Your task to perform on an android device: toggle data saver in the chrome app Image 0: 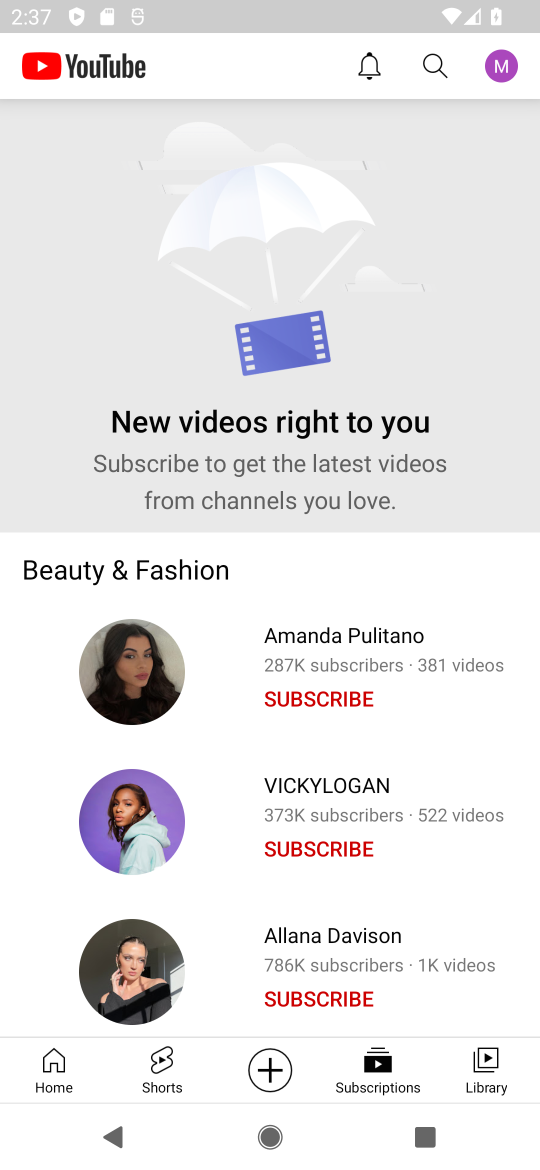
Step 0: press home button
Your task to perform on an android device: toggle data saver in the chrome app Image 1: 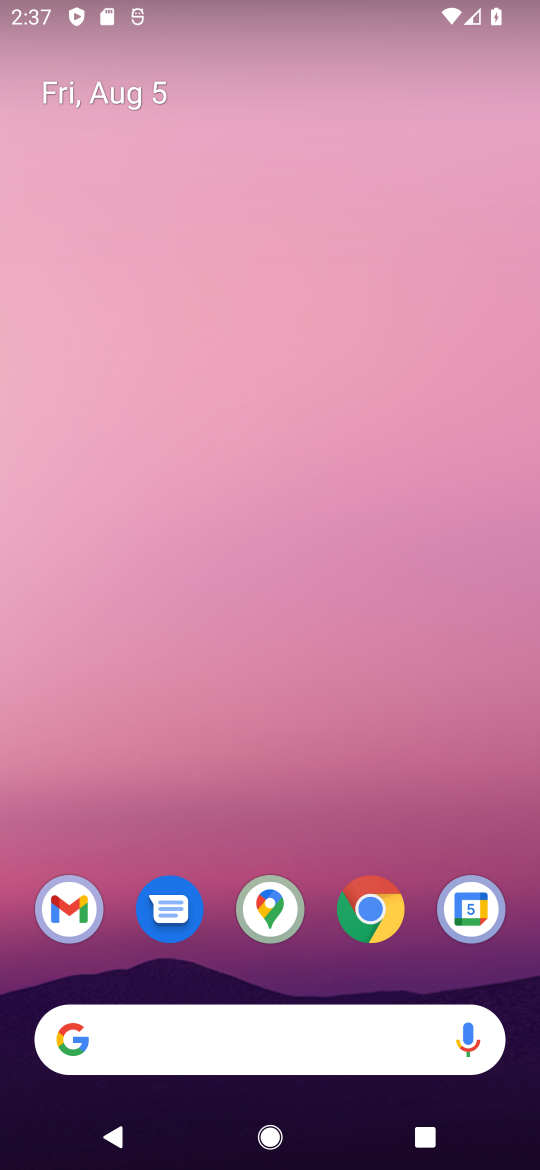
Step 1: click (363, 899)
Your task to perform on an android device: toggle data saver in the chrome app Image 2: 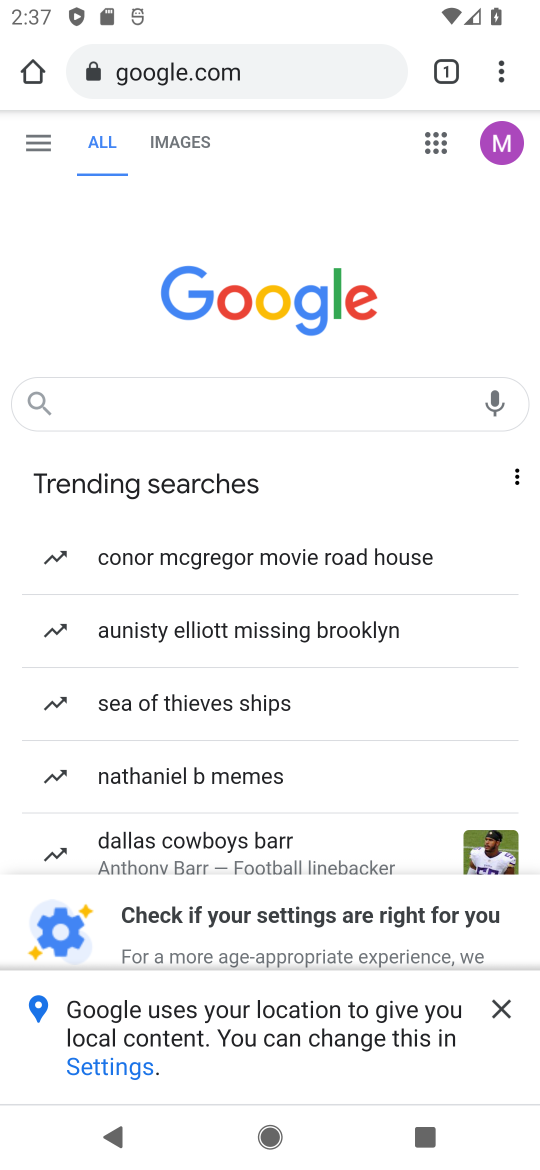
Step 2: click (502, 69)
Your task to perform on an android device: toggle data saver in the chrome app Image 3: 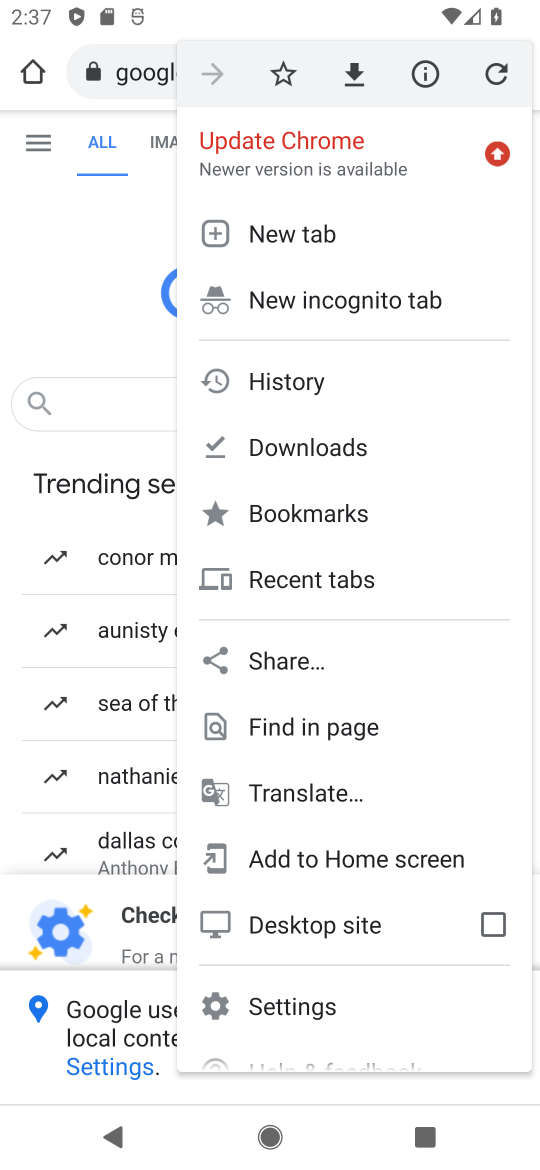
Step 3: click (316, 1009)
Your task to perform on an android device: toggle data saver in the chrome app Image 4: 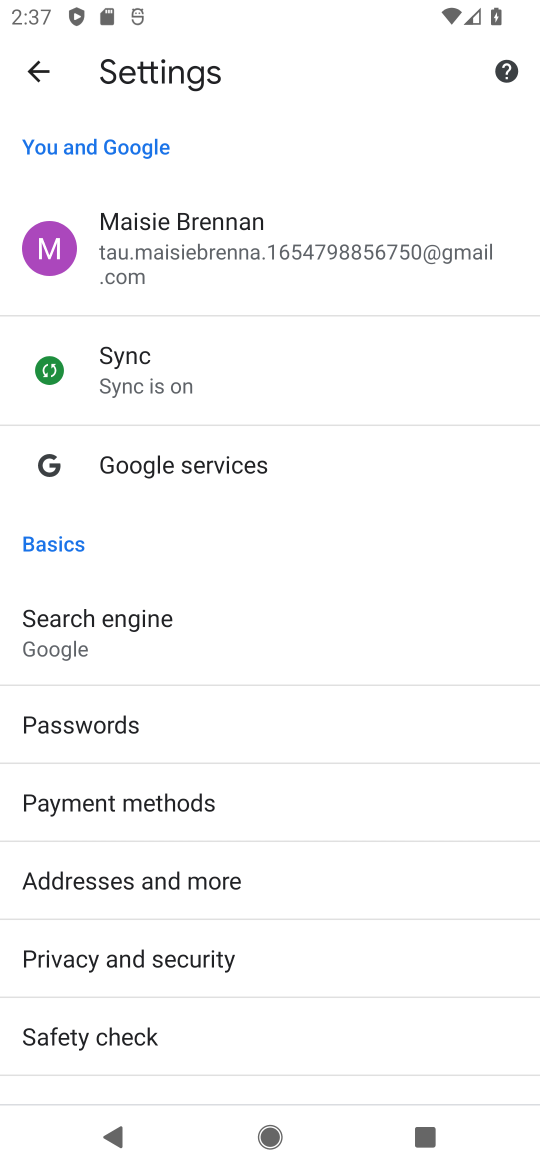
Step 4: drag from (316, 975) to (318, 317)
Your task to perform on an android device: toggle data saver in the chrome app Image 5: 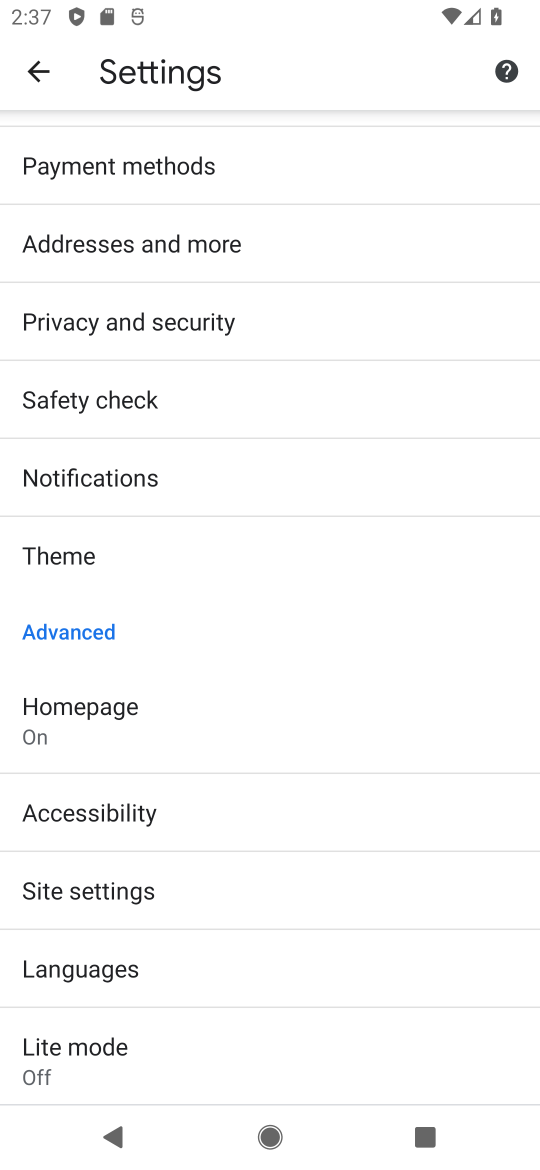
Step 5: click (302, 1048)
Your task to perform on an android device: toggle data saver in the chrome app Image 6: 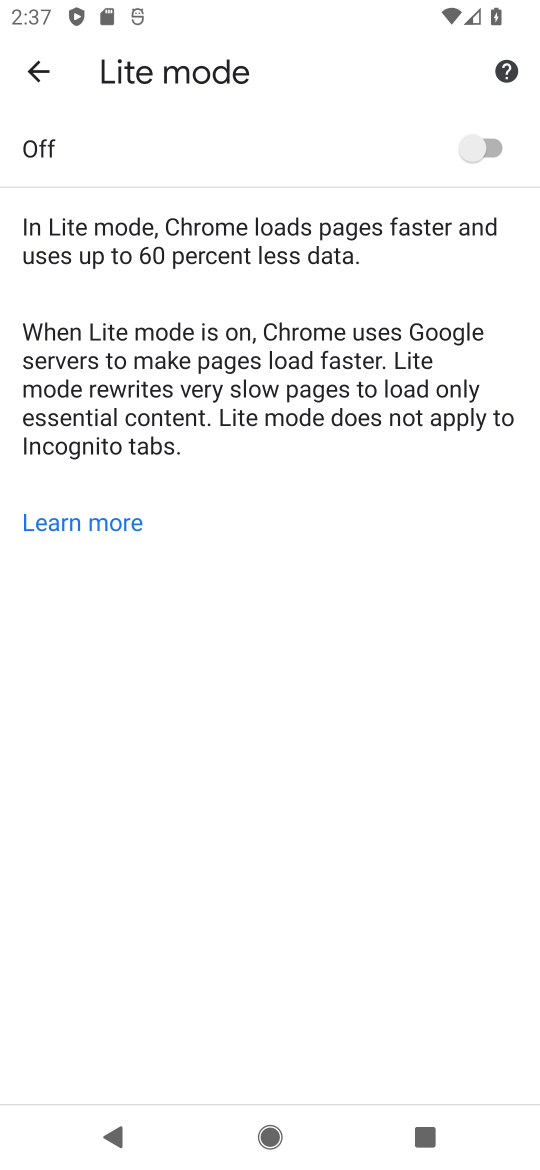
Step 6: click (447, 157)
Your task to perform on an android device: toggle data saver in the chrome app Image 7: 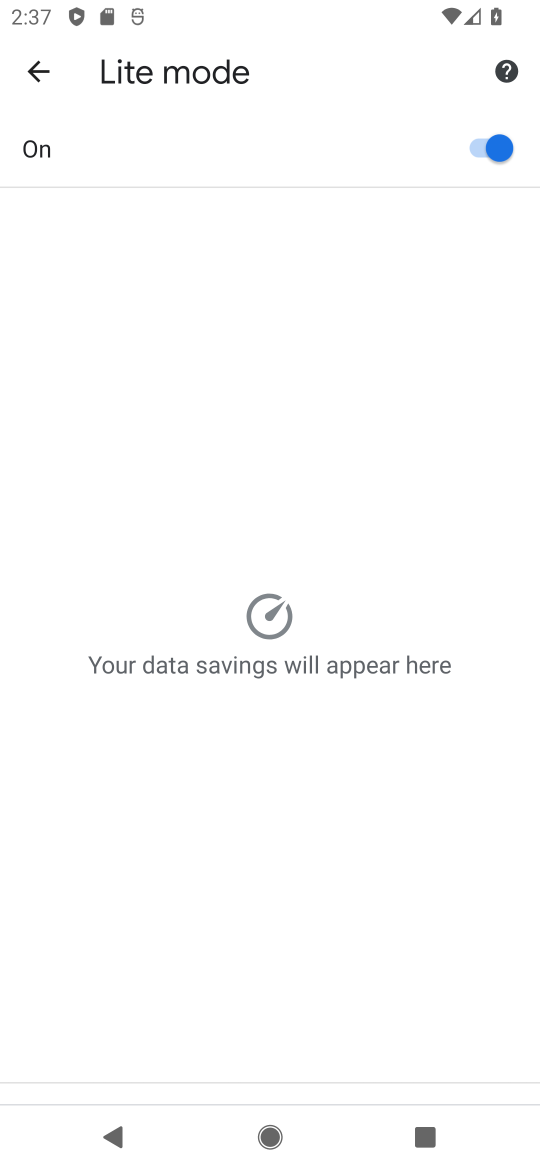
Step 7: task complete